Your task to perform on an android device: change text size in settings app Image 0: 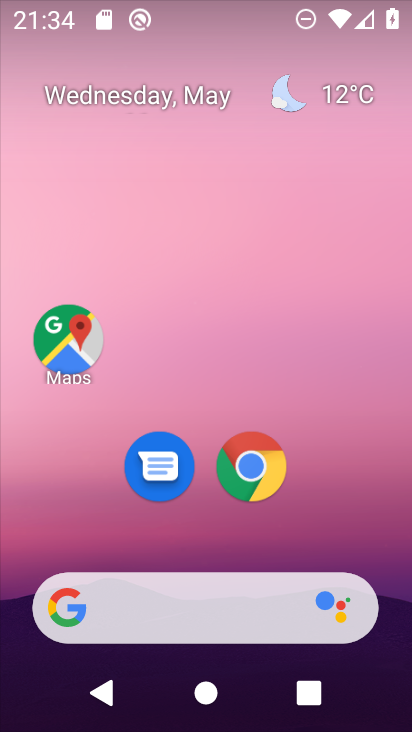
Step 0: press home button
Your task to perform on an android device: change text size in settings app Image 1: 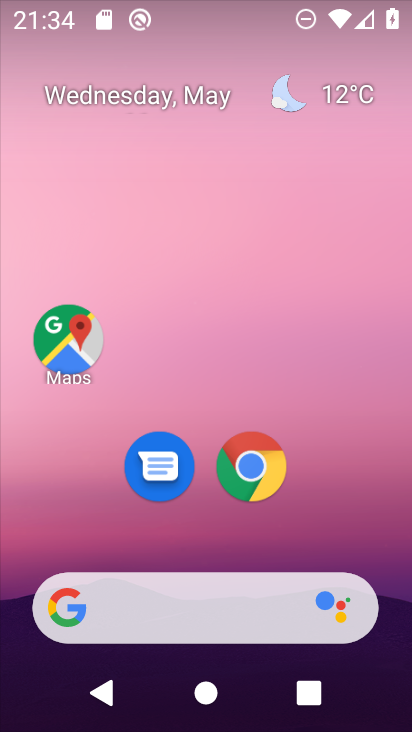
Step 1: drag from (217, 540) to (210, 71)
Your task to perform on an android device: change text size in settings app Image 2: 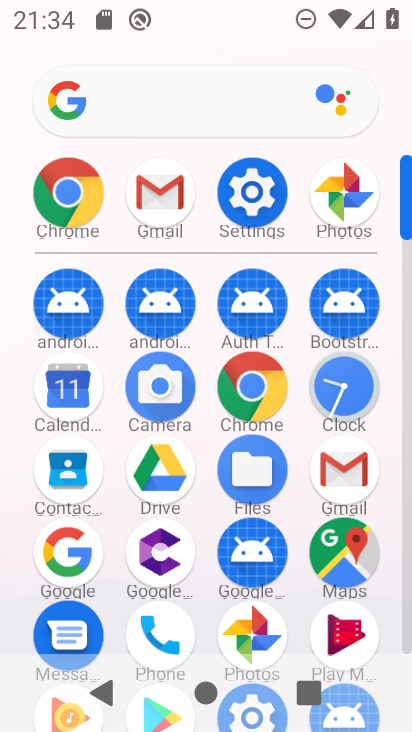
Step 2: click (249, 179)
Your task to perform on an android device: change text size in settings app Image 3: 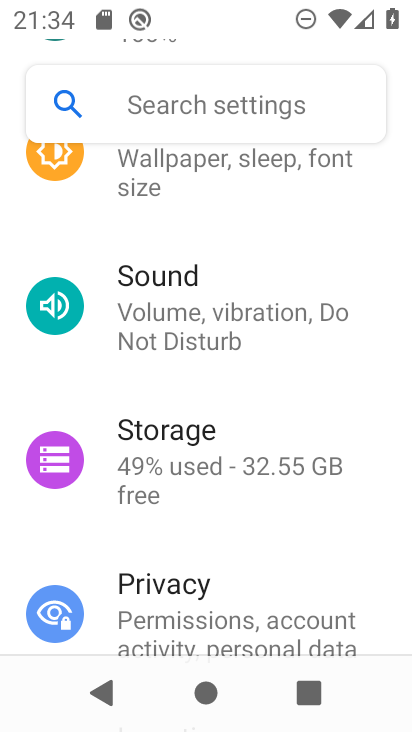
Step 3: click (147, 167)
Your task to perform on an android device: change text size in settings app Image 4: 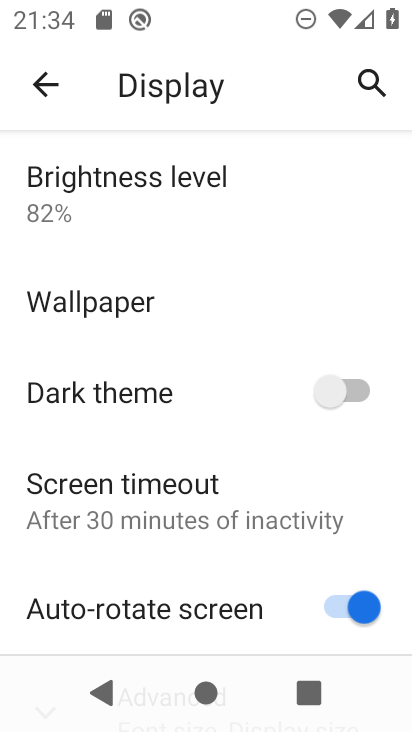
Step 4: drag from (177, 561) to (172, 121)
Your task to perform on an android device: change text size in settings app Image 5: 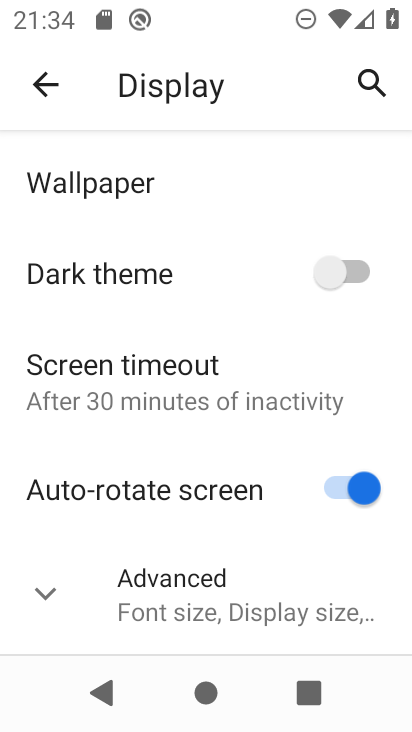
Step 5: click (42, 592)
Your task to perform on an android device: change text size in settings app Image 6: 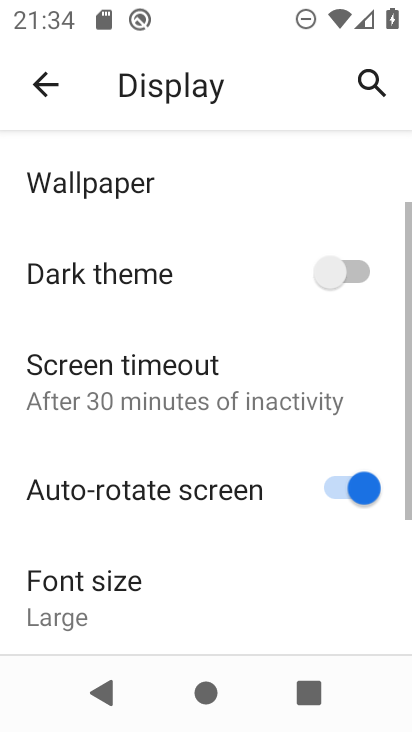
Step 6: click (117, 600)
Your task to perform on an android device: change text size in settings app Image 7: 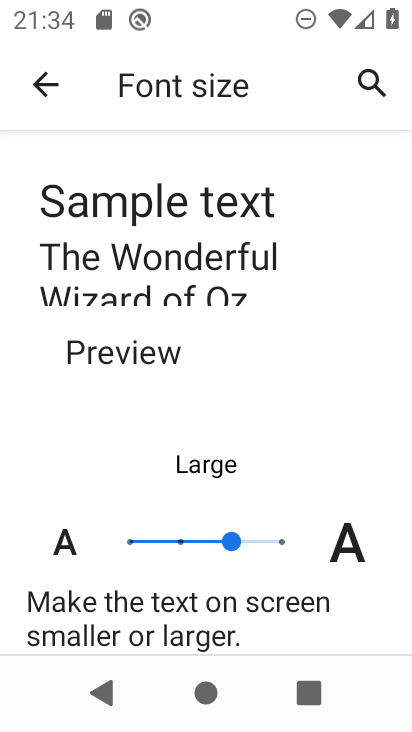
Step 7: click (127, 540)
Your task to perform on an android device: change text size in settings app Image 8: 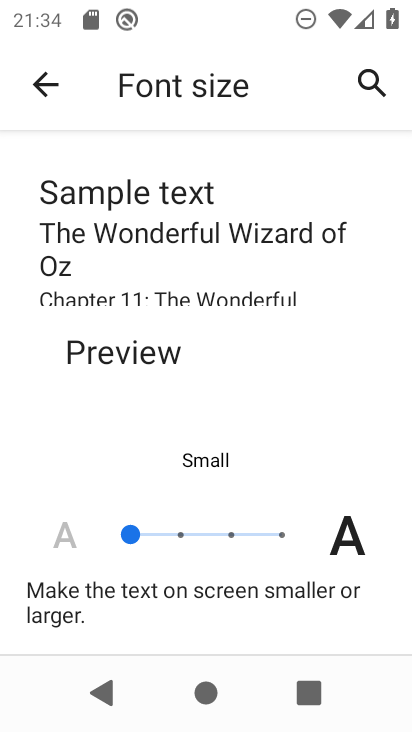
Step 8: task complete